Your task to perform on an android device: Do I have any events tomorrow? Image 0: 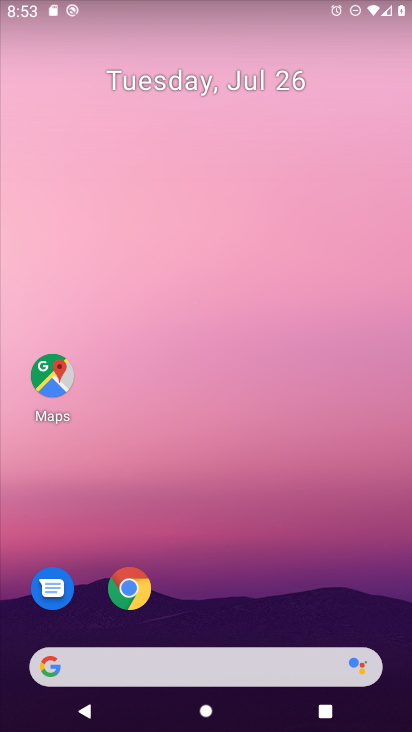
Step 0: drag from (227, 653) to (272, 261)
Your task to perform on an android device: Do I have any events tomorrow? Image 1: 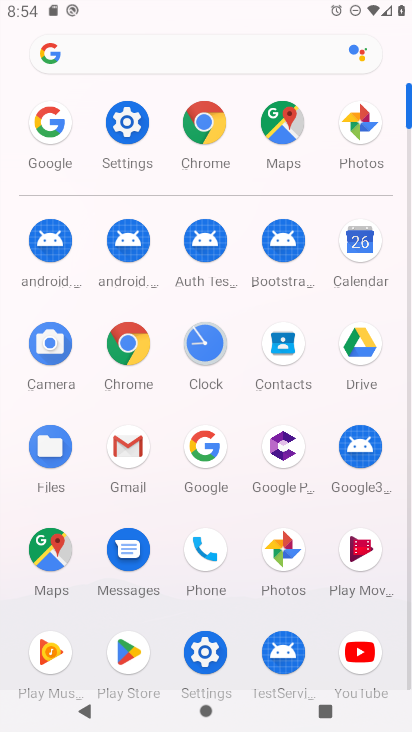
Step 1: click (361, 259)
Your task to perform on an android device: Do I have any events tomorrow? Image 2: 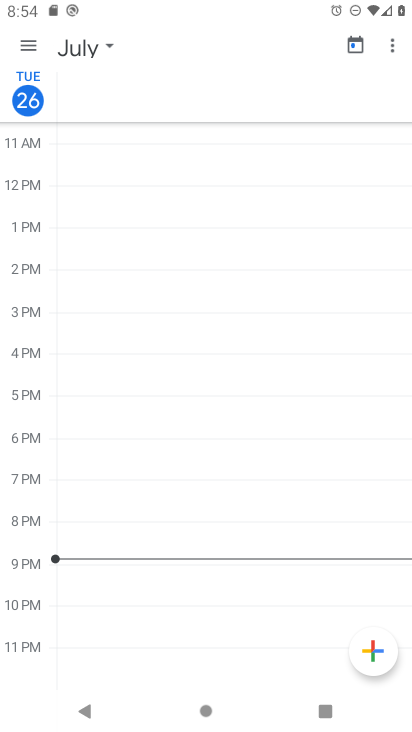
Step 2: click (30, 45)
Your task to perform on an android device: Do I have any events tomorrow? Image 3: 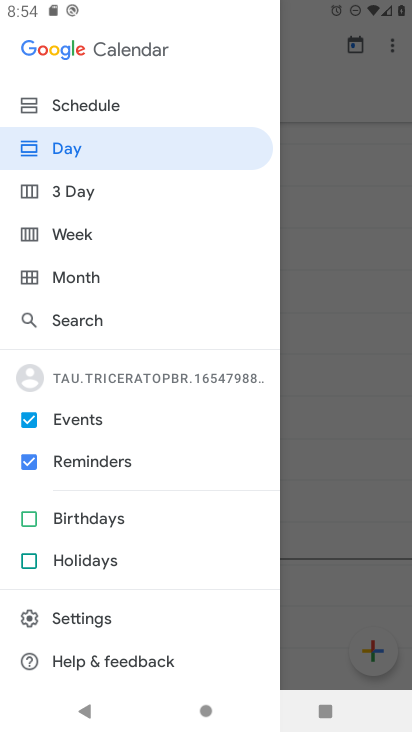
Step 3: click (92, 110)
Your task to perform on an android device: Do I have any events tomorrow? Image 4: 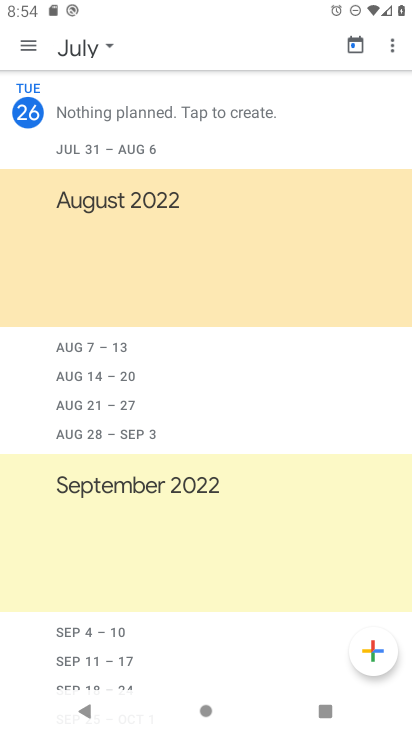
Step 4: drag from (135, 547) to (124, 649)
Your task to perform on an android device: Do I have any events tomorrow? Image 5: 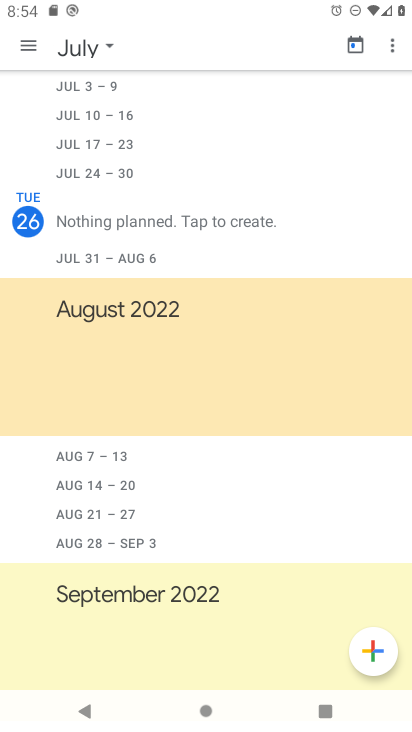
Step 5: click (85, 58)
Your task to perform on an android device: Do I have any events tomorrow? Image 6: 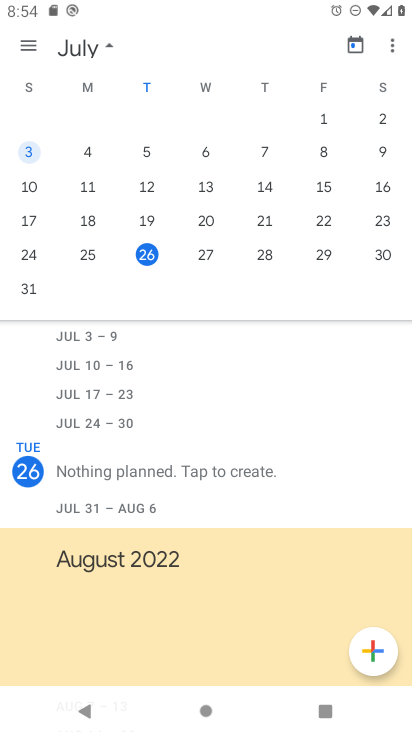
Step 6: click (204, 250)
Your task to perform on an android device: Do I have any events tomorrow? Image 7: 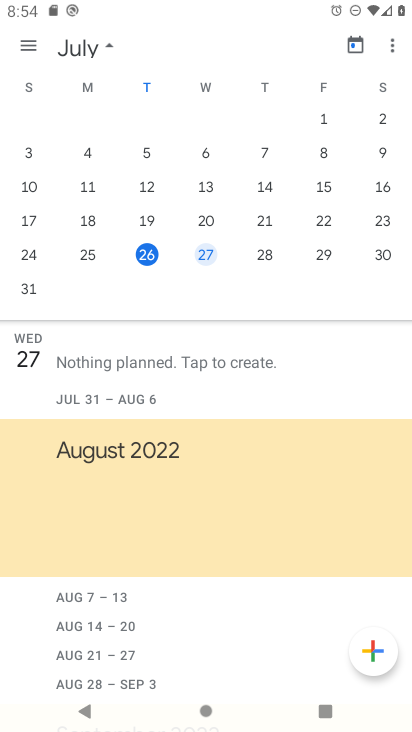
Step 7: task complete